Your task to perform on an android device: Open Chrome and go to settings Image 0: 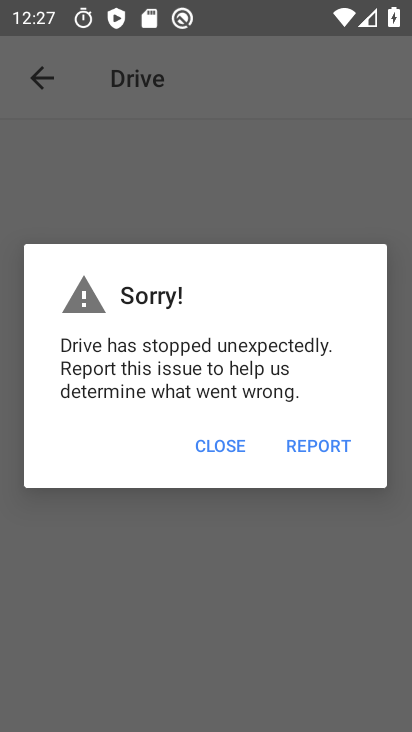
Step 0: click (221, 442)
Your task to perform on an android device: Open Chrome and go to settings Image 1: 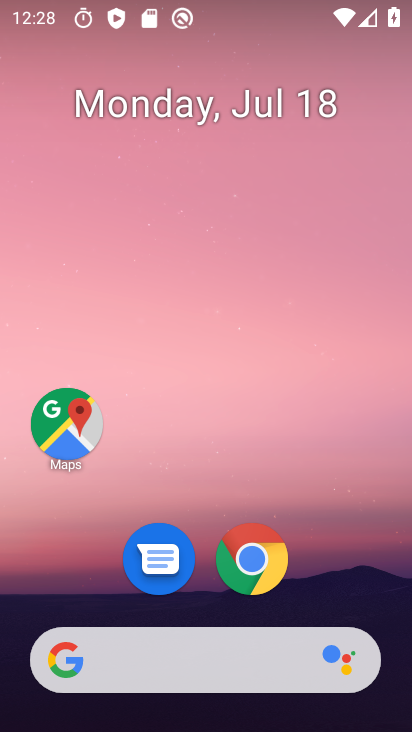
Step 1: click (265, 557)
Your task to perform on an android device: Open Chrome and go to settings Image 2: 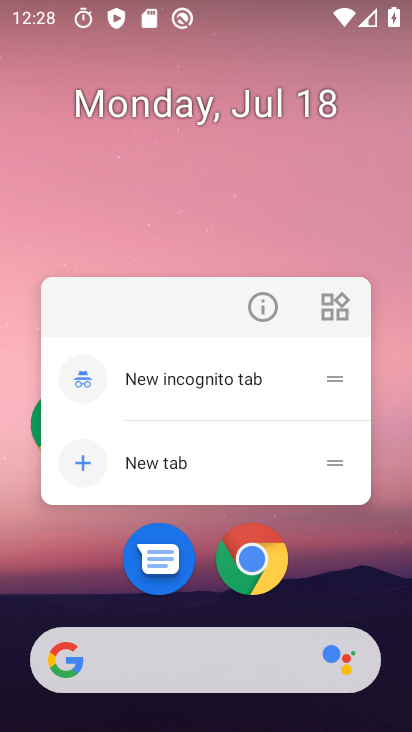
Step 2: click (248, 538)
Your task to perform on an android device: Open Chrome and go to settings Image 3: 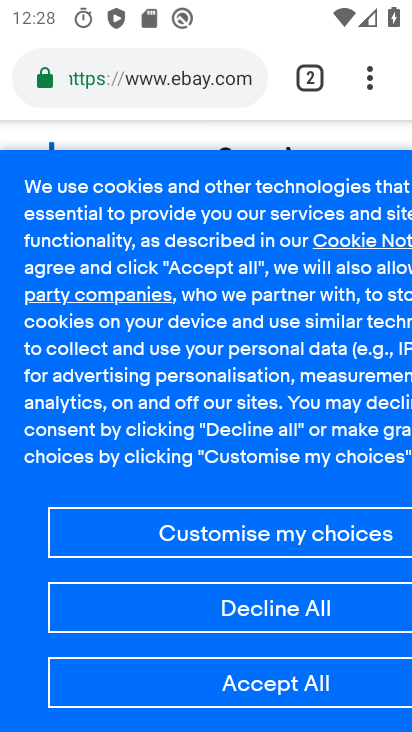
Step 3: task complete